Your task to perform on an android device: Search for sushi restaurants on Maps Image 0: 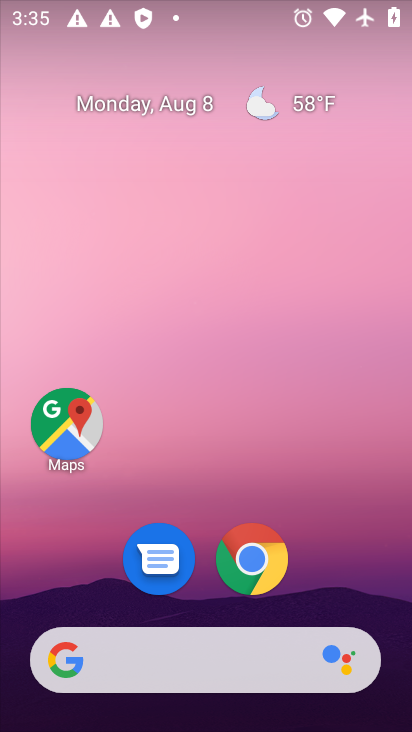
Step 0: click (68, 427)
Your task to perform on an android device: Search for sushi restaurants on Maps Image 1: 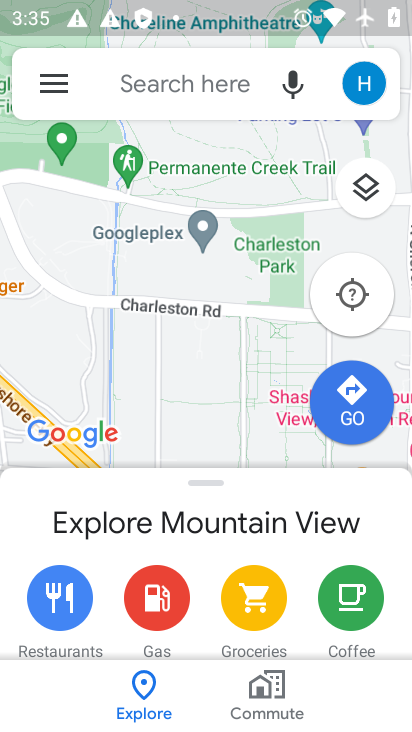
Step 1: click (156, 92)
Your task to perform on an android device: Search for sushi restaurants on Maps Image 2: 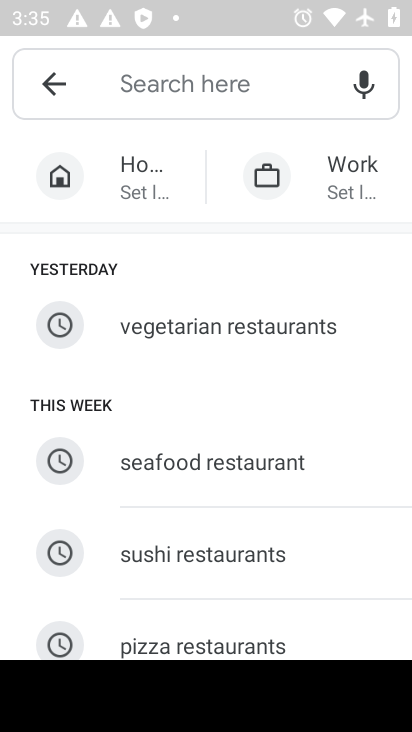
Step 2: click (265, 554)
Your task to perform on an android device: Search for sushi restaurants on Maps Image 3: 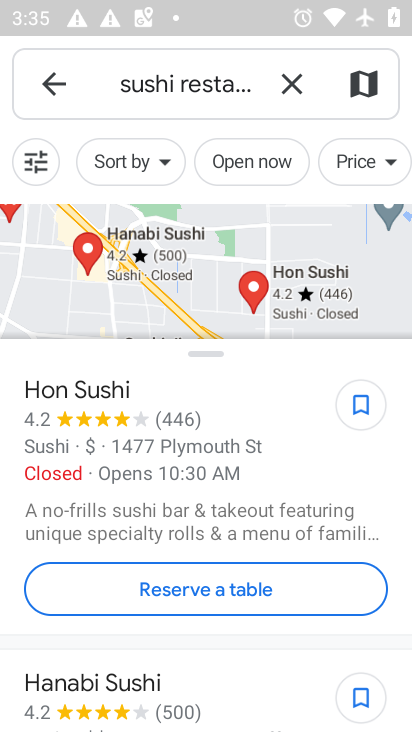
Step 3: task complete